Your task to perform on an android device: stop showing notifications on the lock screen Image 0: 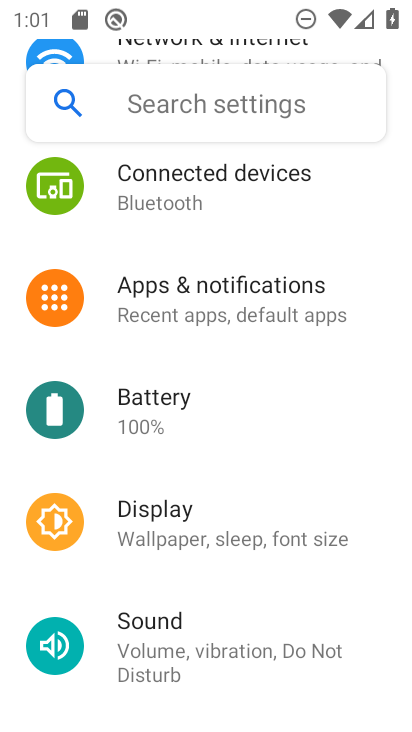
Step 0: press home button
Your task to perform on an android device: stop showing notifications on the lock screen Image 1: 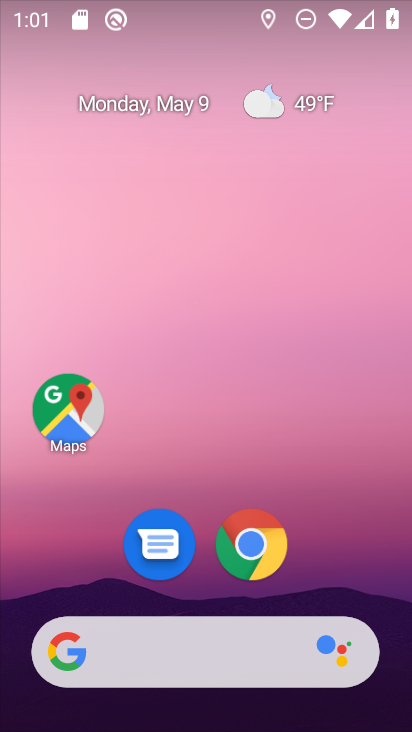
Step 1: drag from (327, 558) to (280, 81)
Your task to perform on an android device: stop showing notifications on the lock screen Image 2: 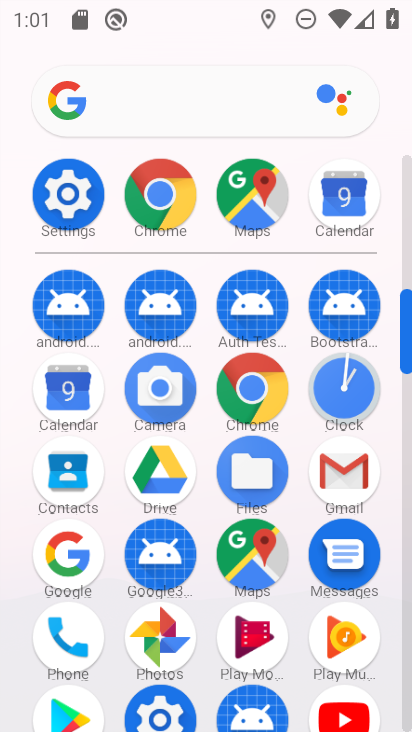
Step 2: click (73, 200)
Your task to perform on an android device: stop showing notifications on the lock screen Image 3: 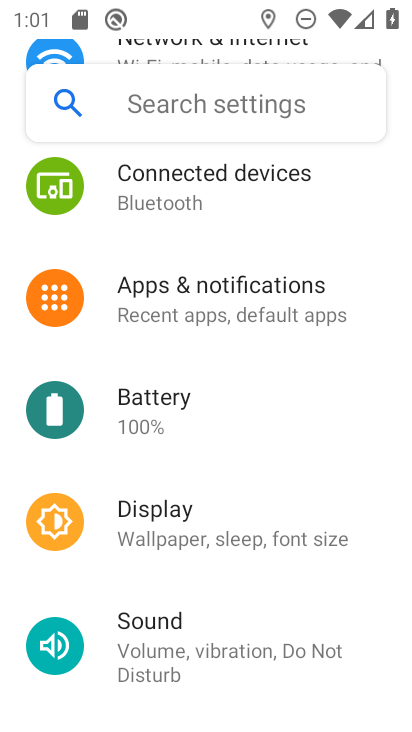
Step 3: click (287, 295)
Your task to perform on an android device: stop showing notifications on the lock screen Image 4: 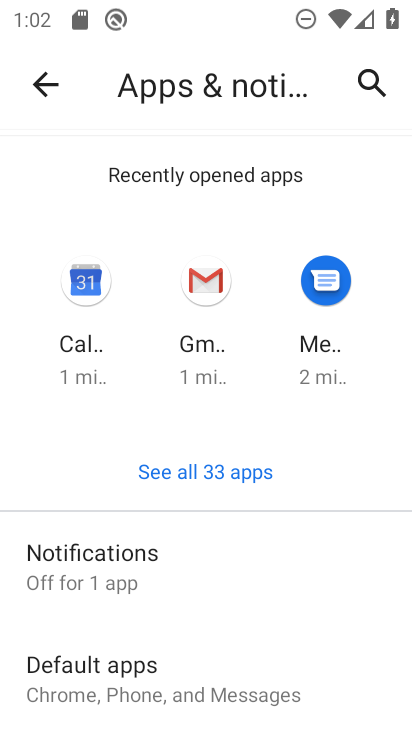
Step 4: click (79, 563)
Your task to perform on an android device: stop showing notifications on the lock screen Image 5: 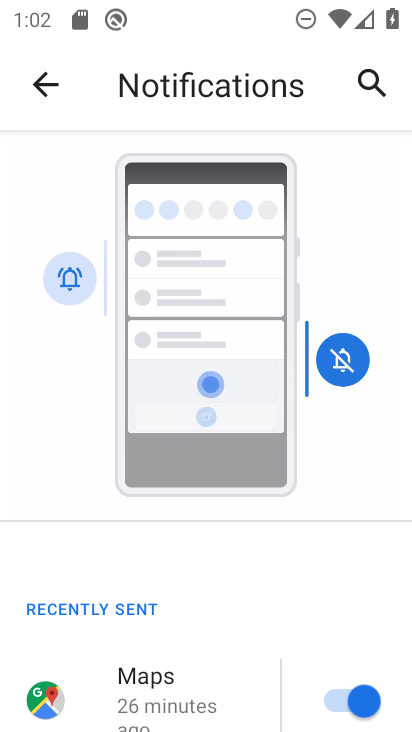
Step 5: drag from (206, 694) to (246, 282)
Your task to perform on an android device: stop showing notifications on the lock screen Image 6: 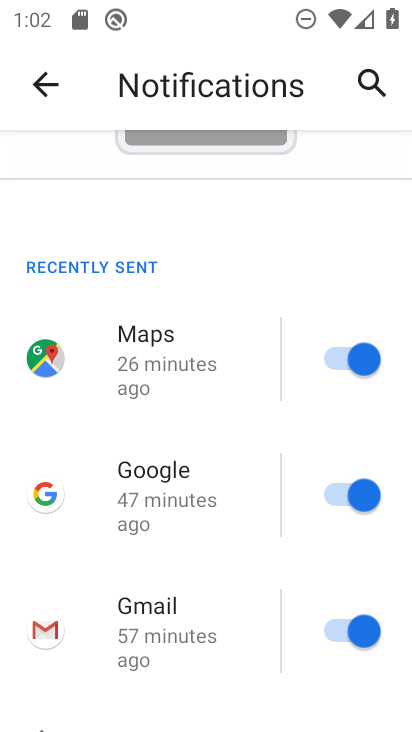
Step 6: drag from (187, 582) to (161, 184)
Your task to perform on an android device: stop showing notifications on the lock screen Image 7: 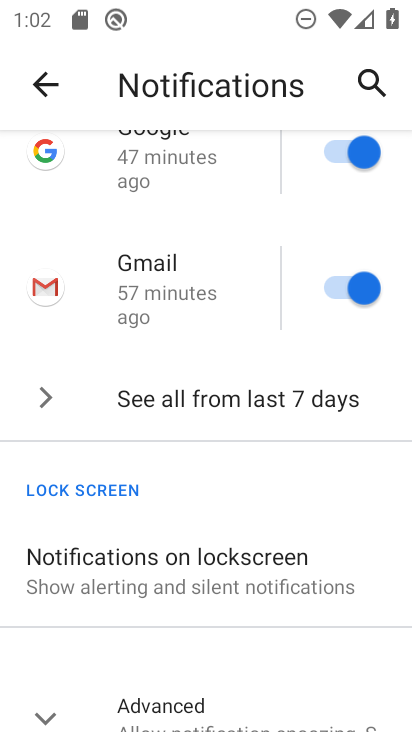
Step 7: click (193, 588)
Your task to perform on an android device: stop showing notifications on the lock screen Image 8: 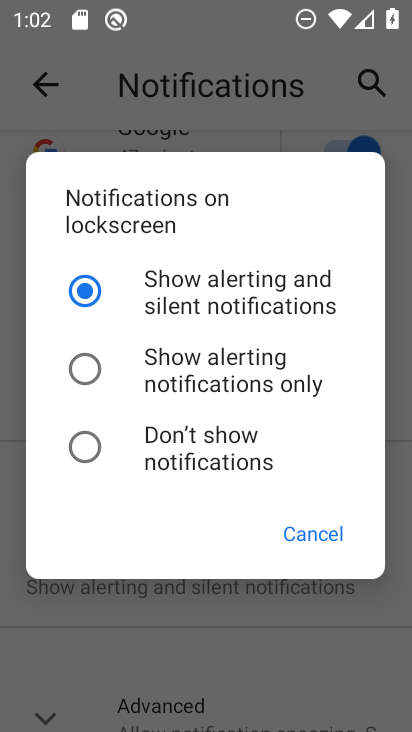
Step 8: click (81, 429)
Your task to perform on an android device: stop showing notifications on the lock screen Image 9: 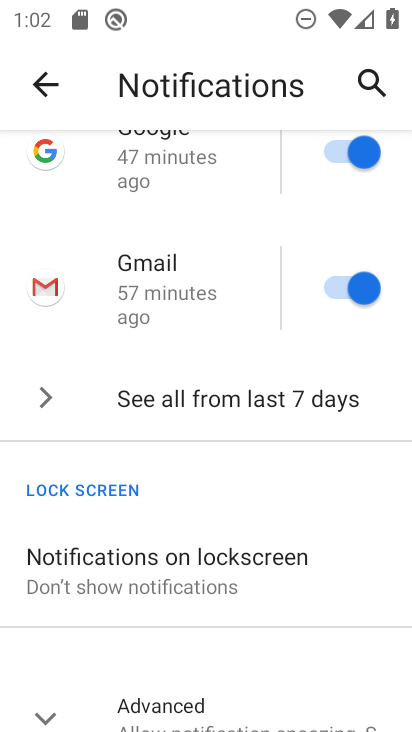
Step 9: task complete